Your task to perform on an android device: Open Chrome and go to settings Image 0: 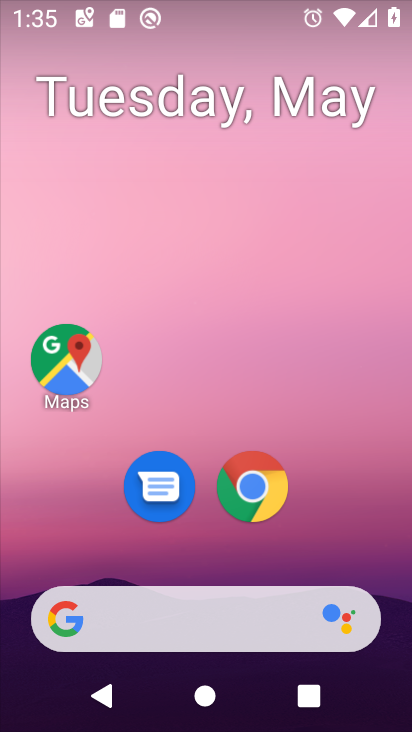
Step 0: click (257, 476)
Your task to perform on an android device: Open Chrome and go to settings Image 1: 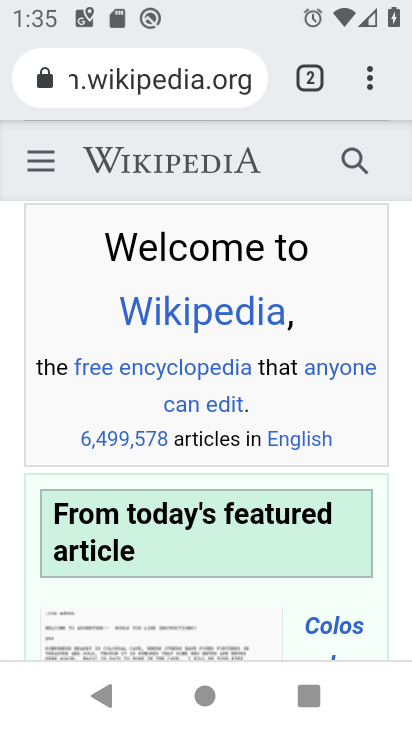
Step 1: click (365, 69)
Your task to perform on an android device: Open Chrome and go to settings Image 2: 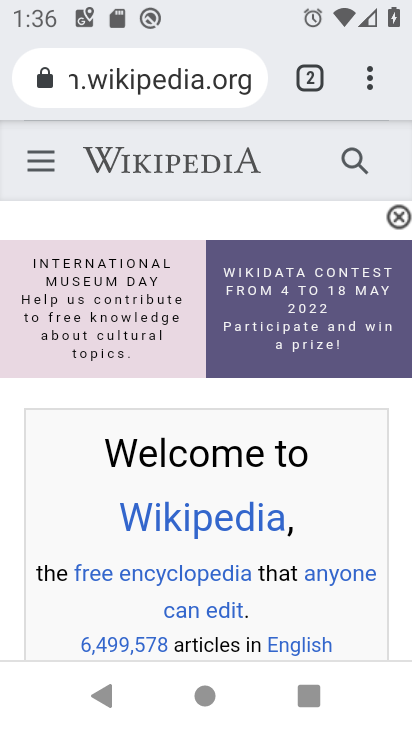
Step 2: click (353, 72)
Your task to perform on an android device: Open Chrome and go to settings Image 3: 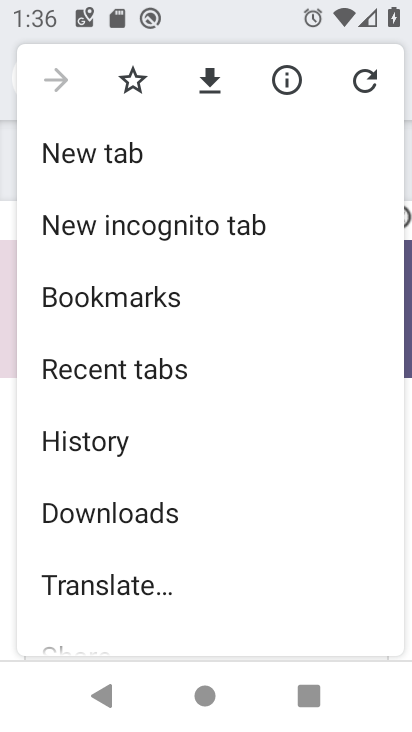
Step 3: drag from (85, 564) to (256, 175)
Your task to perform on an android device: Open Chrome and go to settings Image 4: 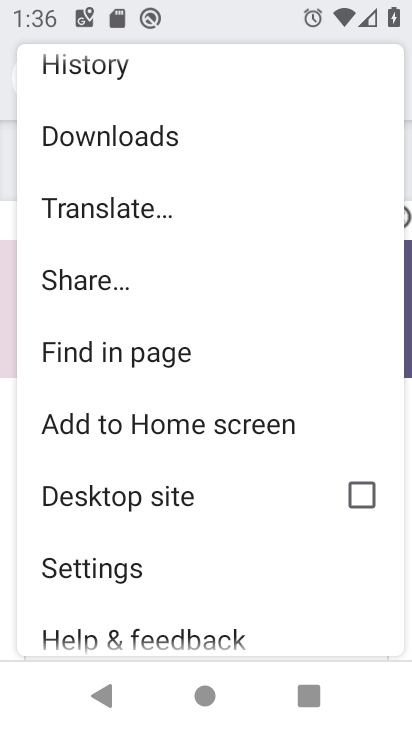
Step 4: click (148, 565)
Your task to perform on an android device: Open Chrome and go to settings Image 5: 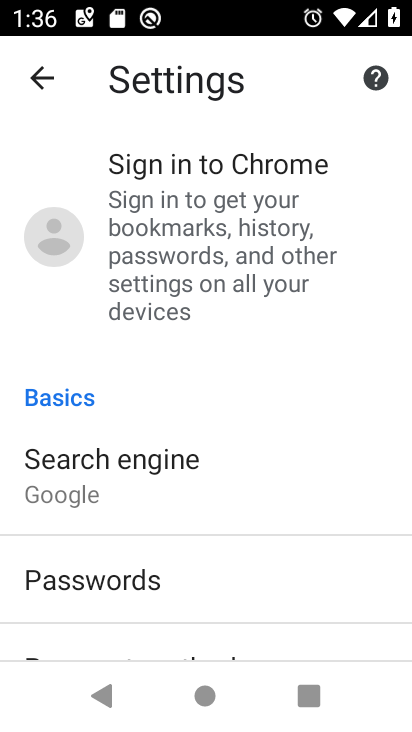
Step 5: task complete